Your task to perform on an android device: install app "Truecaller" Image 0: 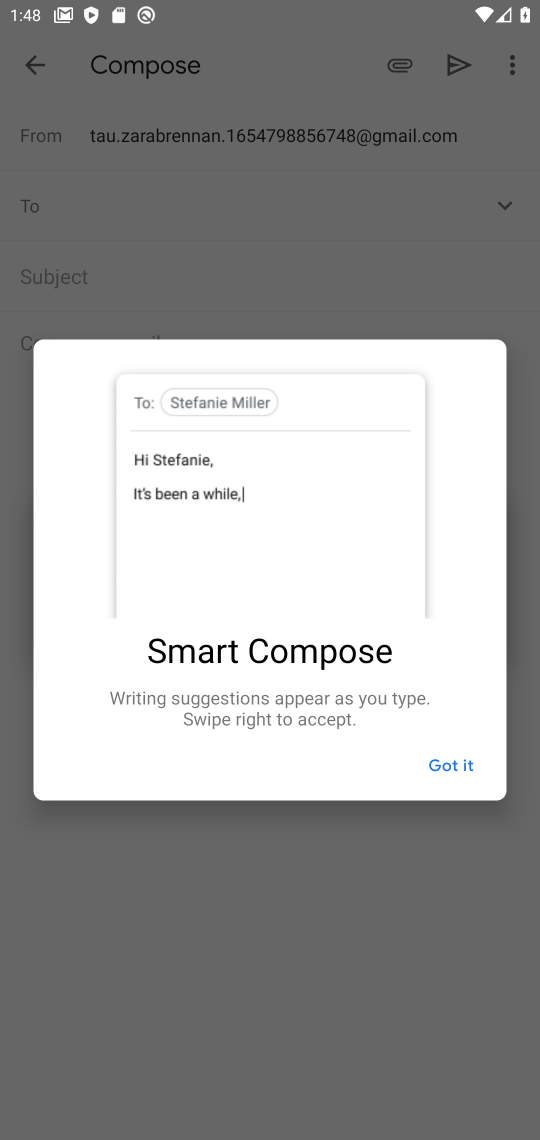
Step 0: press home button
Your task to perform on an android device: install app "Truecaller" Image 1: 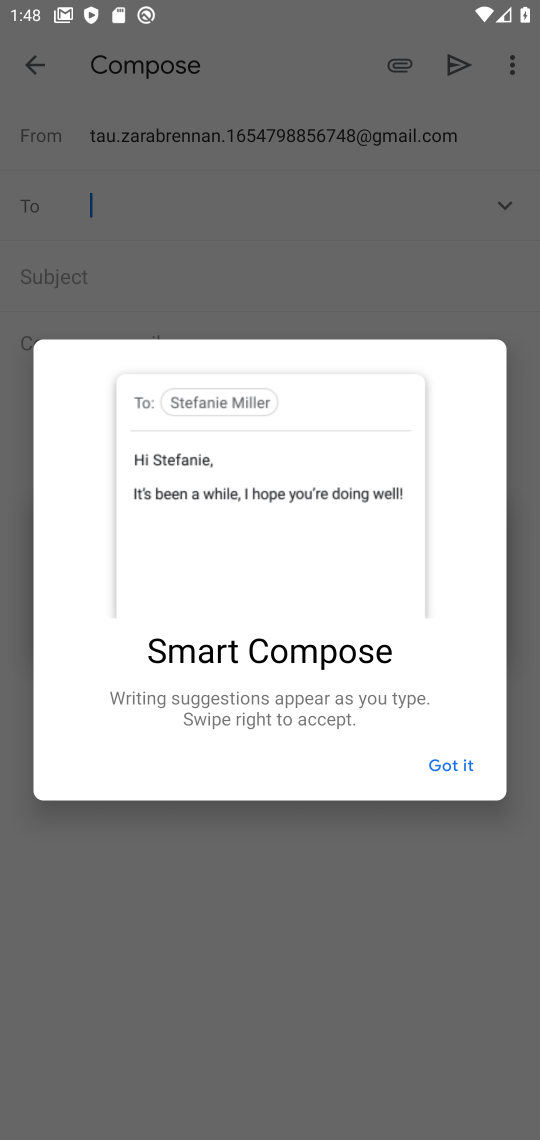
Step 1: press home button
Your task to perform on an android device: install app "Truecaller" Image 2: 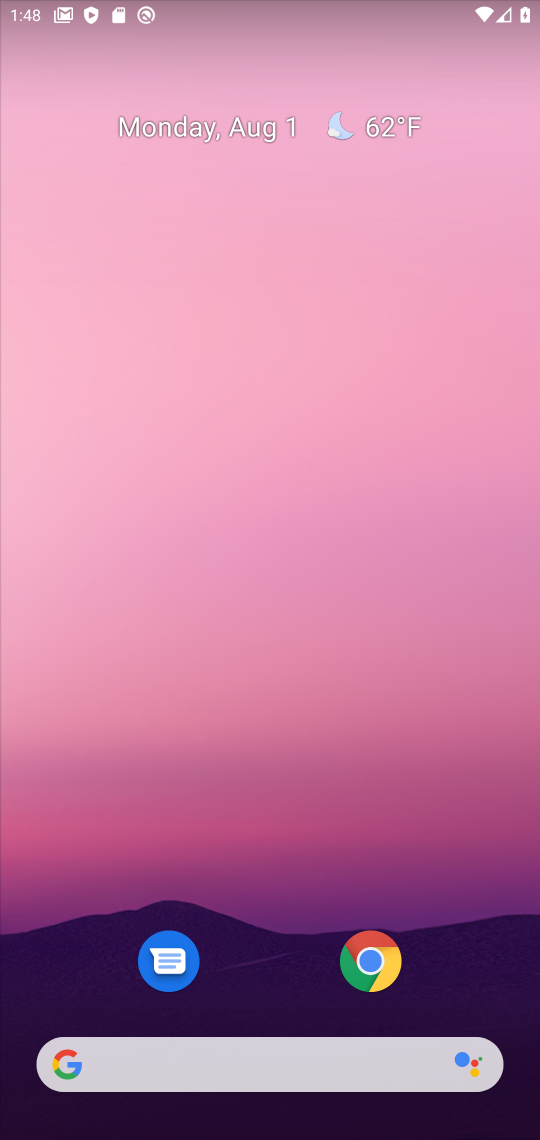
Step 2: drag from (289, 859) to (391, 0)
Your task to perform on an android device: install app "Truecaller" Image 3: 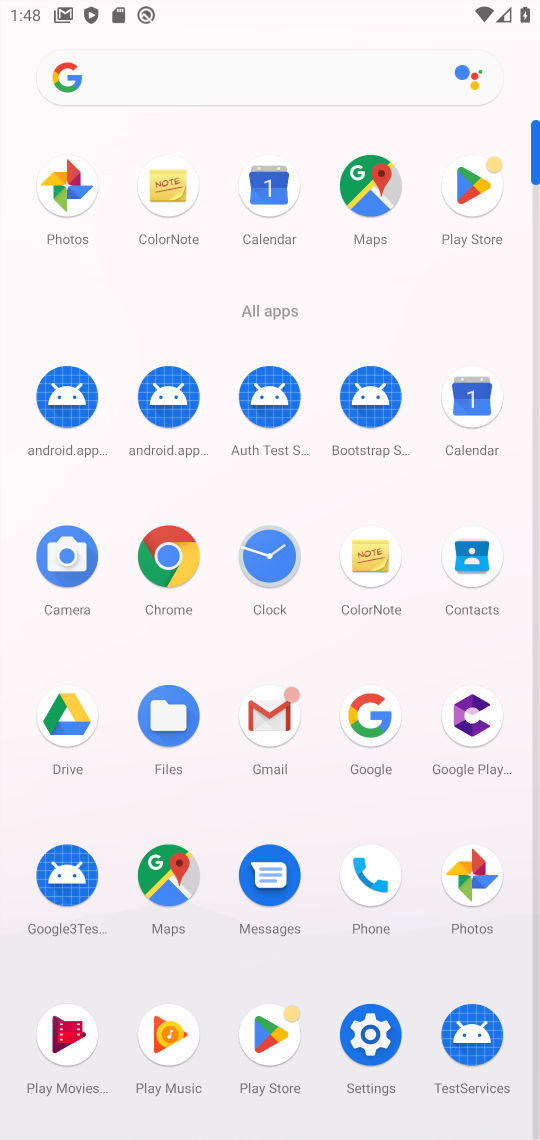
Step 3: click (277, 1017)
Your task to perform on an android device: install app "Truecaller" Image 4: 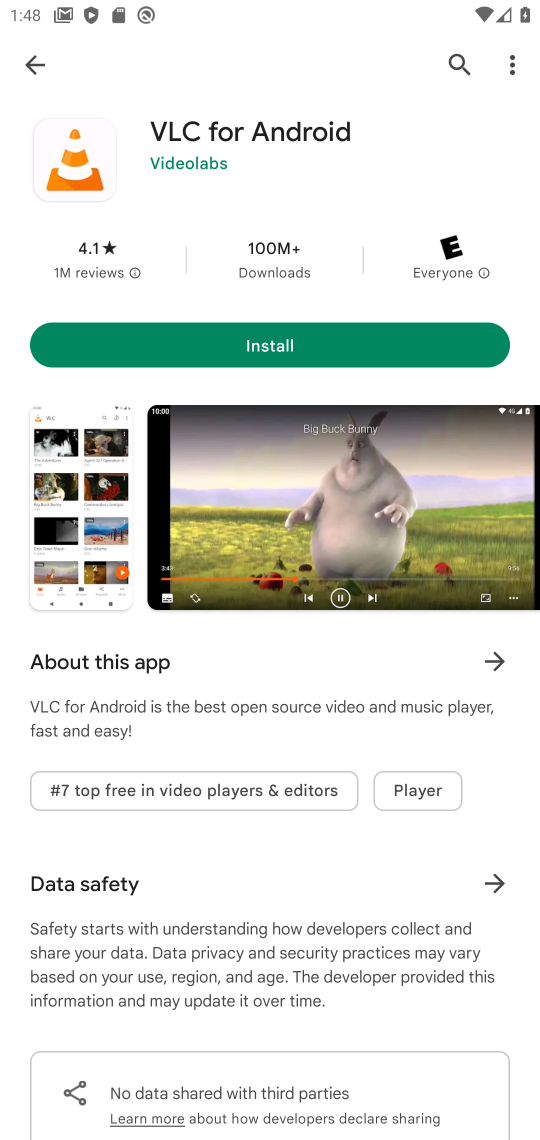
Step 4: click (443, 65)
Your task to perform on an android device: install app "Truecaller" Image 5: 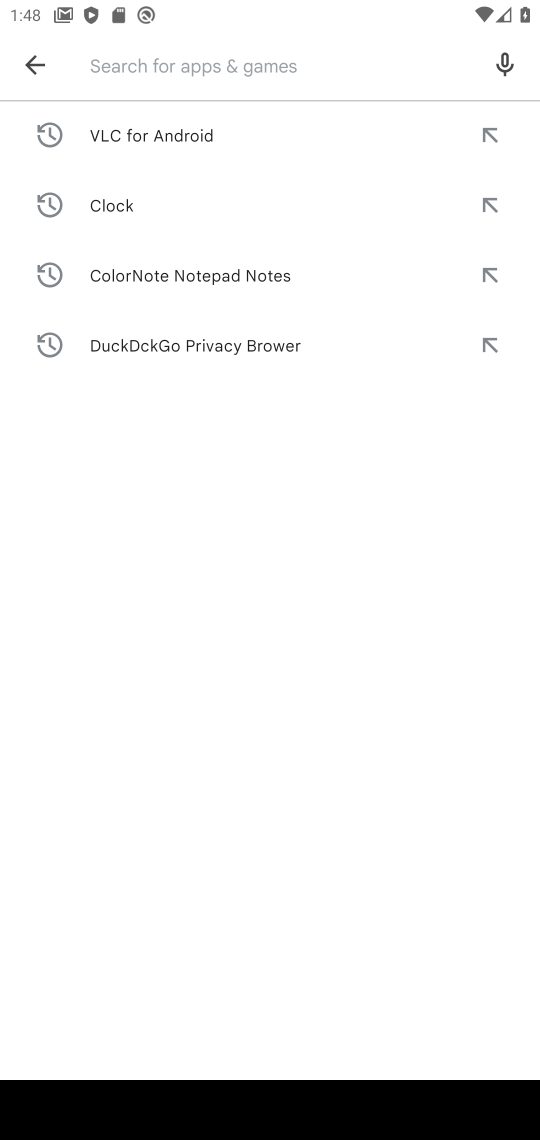
Step 5: type "Truecaller"
Your task to perform on an android device: install app "Truecaller" Image 6: 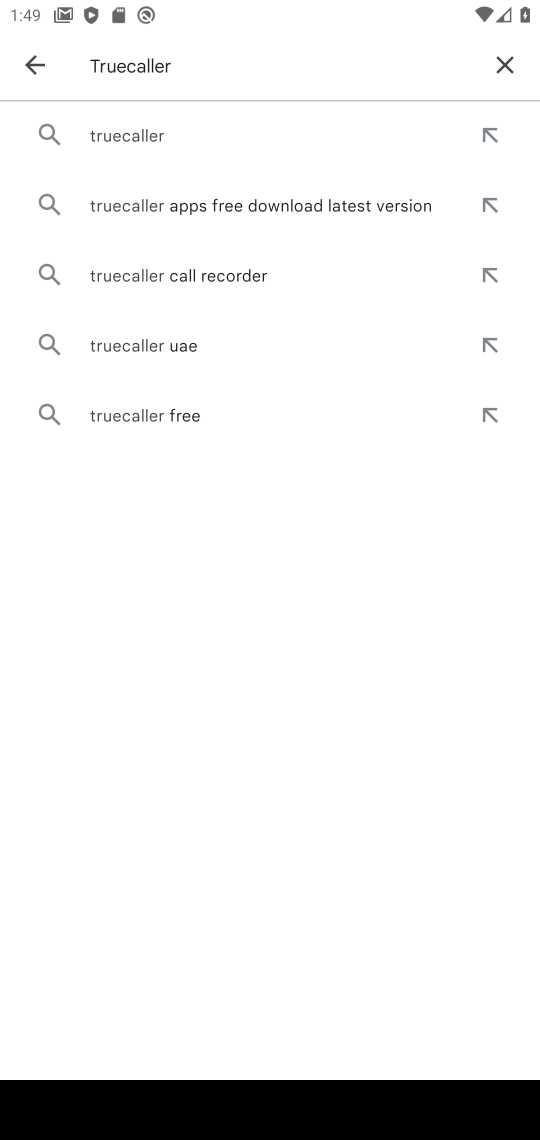
Step 6: press enter
Your task to perform on an android device: install app "Truecaller" Image 7: 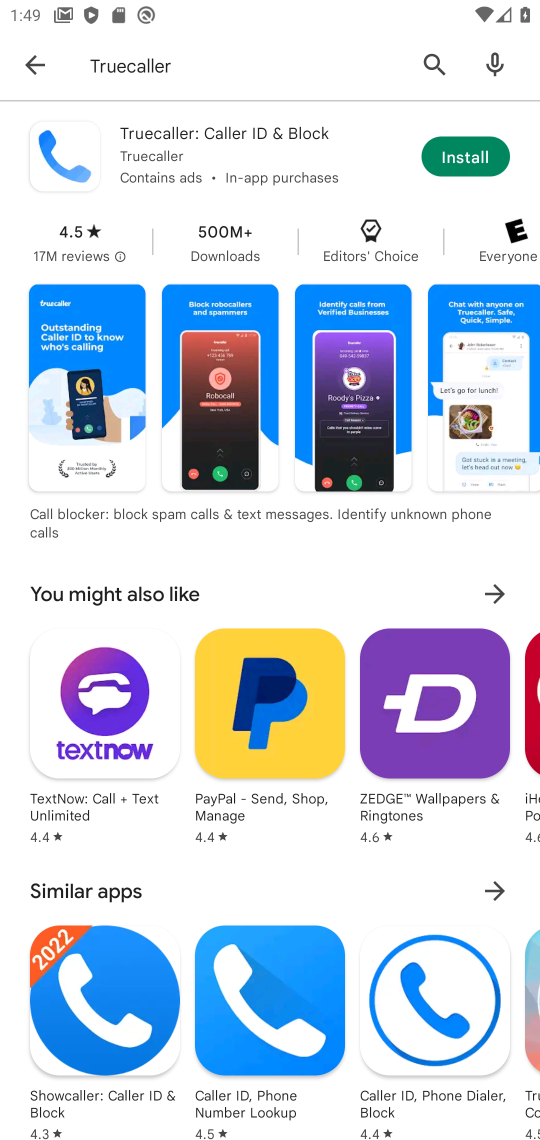
Step 7: click (474, 158)
Your task to perform on an android device: install app "Truecaller" Image 8: 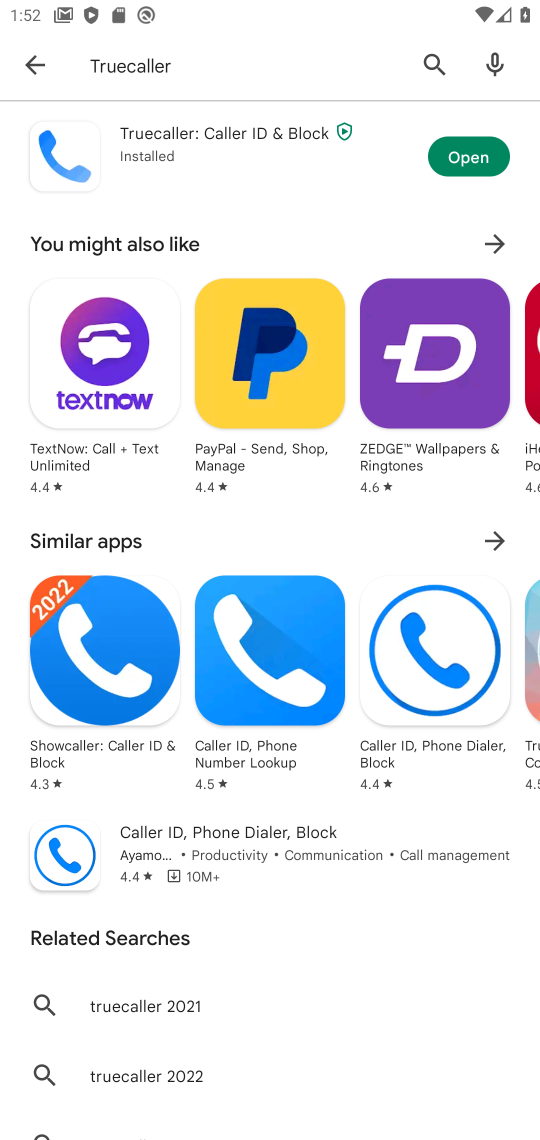
Step 8: task complete